Your task to perform on an android device: Open Reddit.com Image 0: 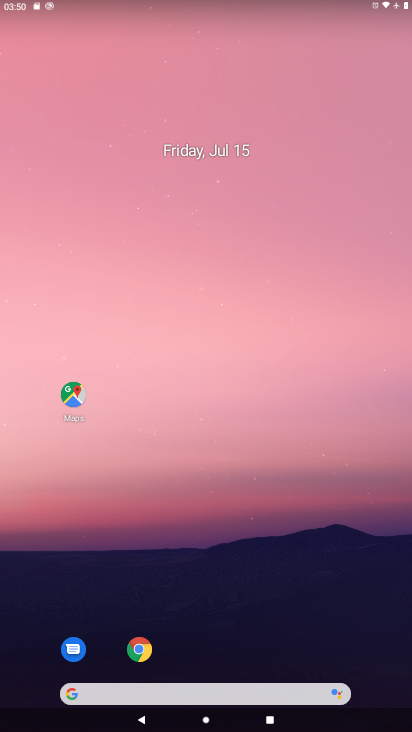
Step 0: click (137, 646)
Your task to perform on an android device: Open Reddit.com Image 1: 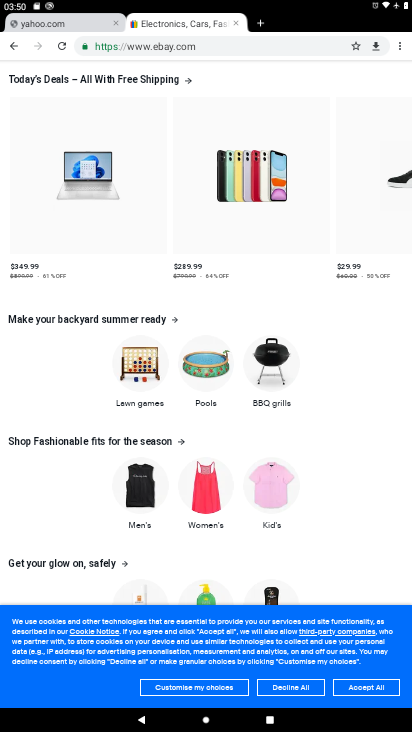
Step 1: click (214, 43)
Your task to perform on an android device: Open Reddit.com Image 2: 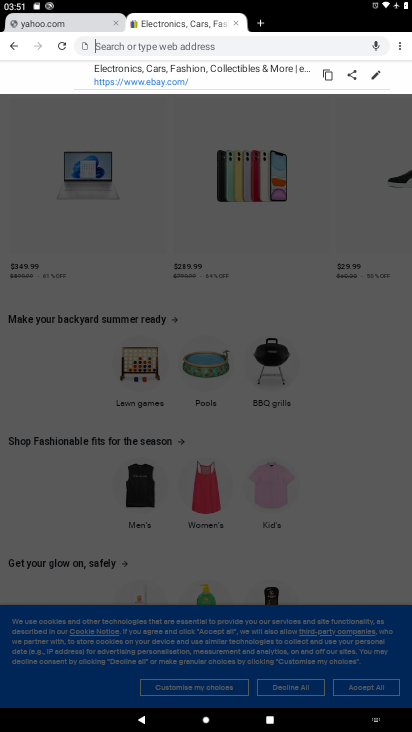
Step 2: type "Reddit.com"
Your task to perform on an android device: Open Reddit.com Image 3: 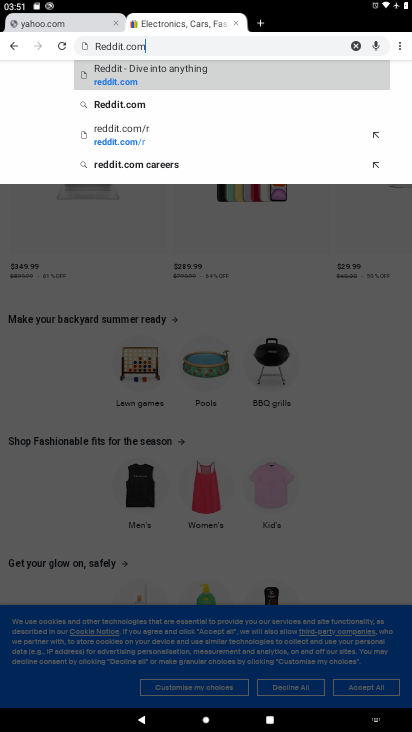
Step 3: click (141, 74)
Your task to perform on an android device: Open Reddit.com Image 4: 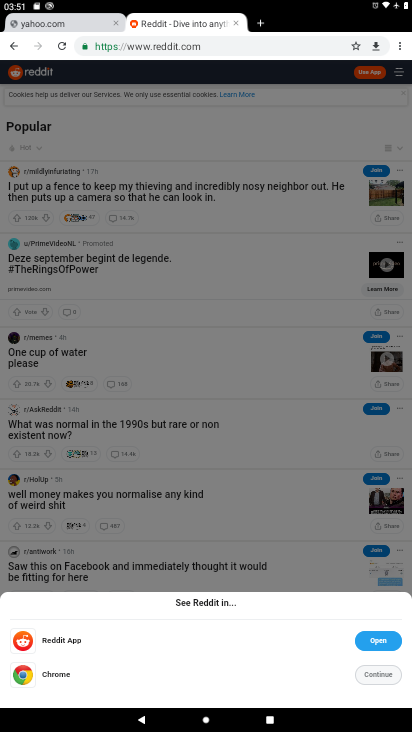
Step 4: task complete